Your task to perform on an android device: delete a single message in the gmail app Image 0: 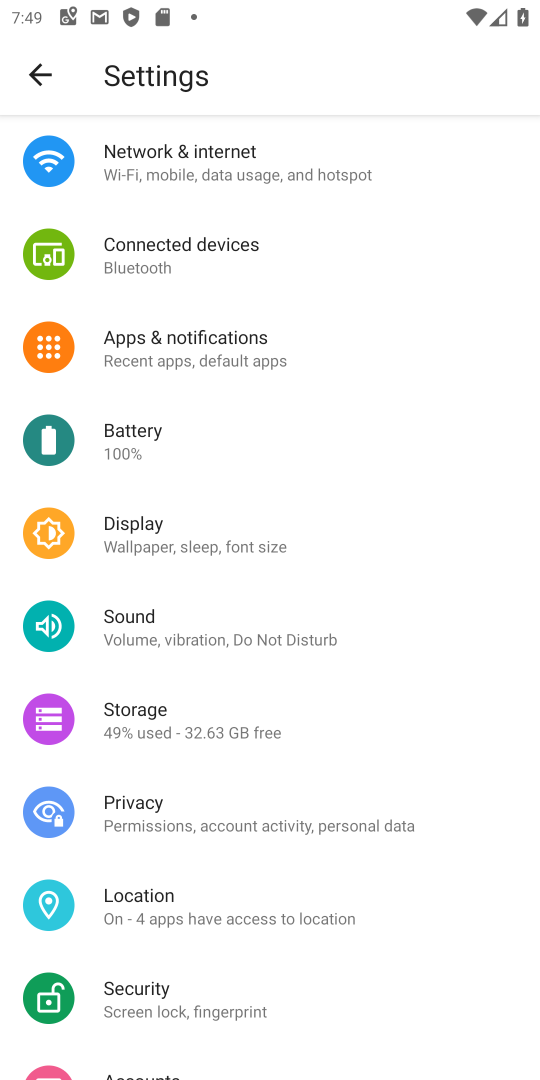
Step 0: press home button
Your task to perform on an android device: delete a single message in the gmail app Image 1: 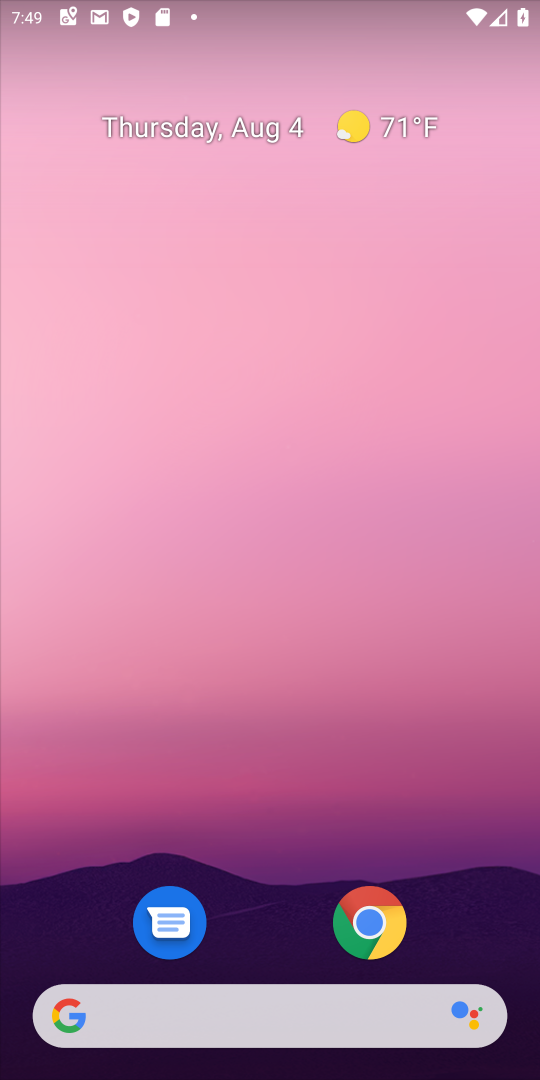
Step 1: drag from (322, 818) to (242, 0)
Your task to perform on an android device: delete a single message in the gmail app Image 2: 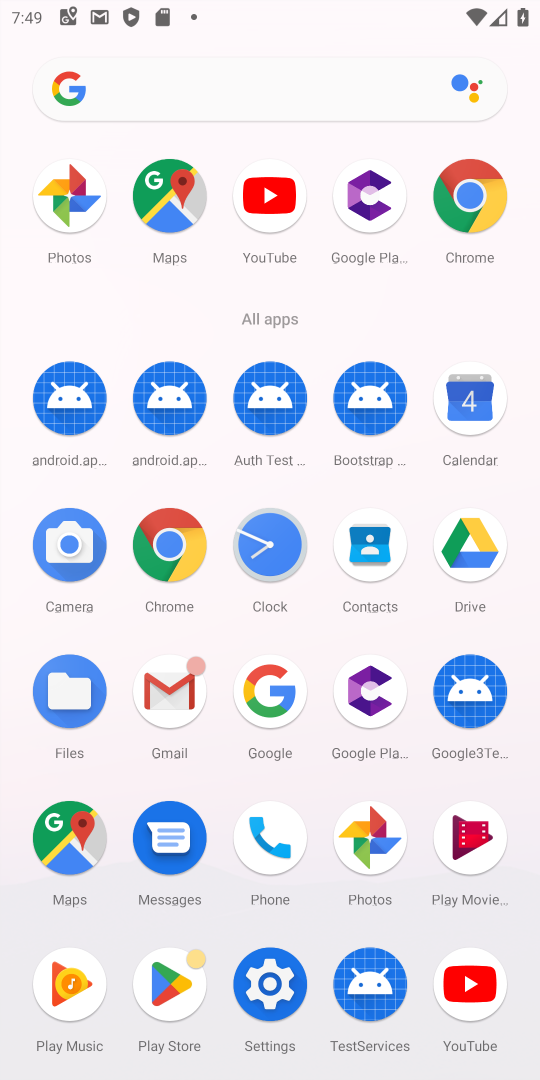
Step 2: click (177, 705)
Your task to perform on an android device: delete a single message in the gmail app Image 3: 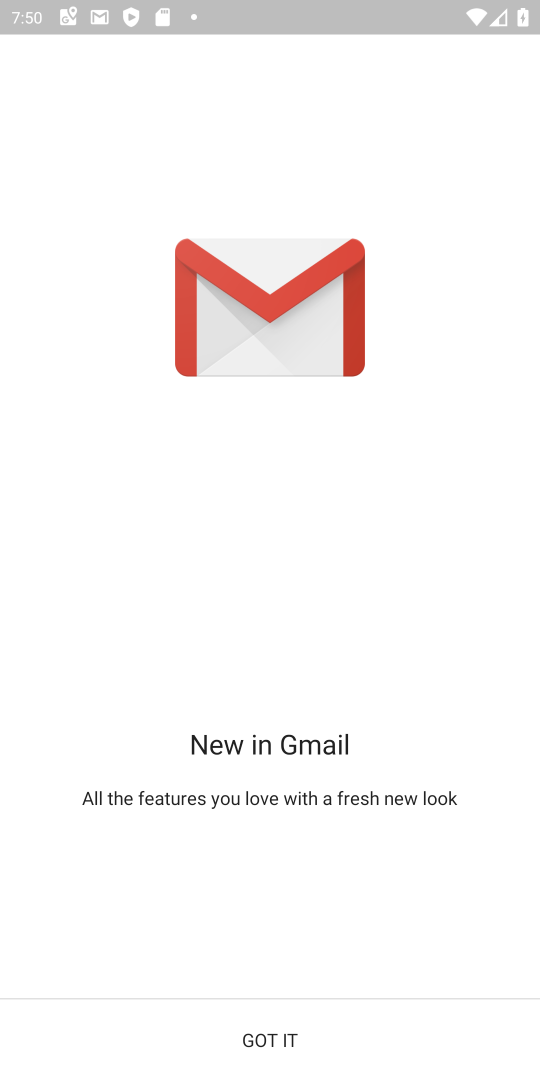
Step 3: click (316, 1026)
Your task to perform on an android device: delete a single message in the gmail app Image 4: 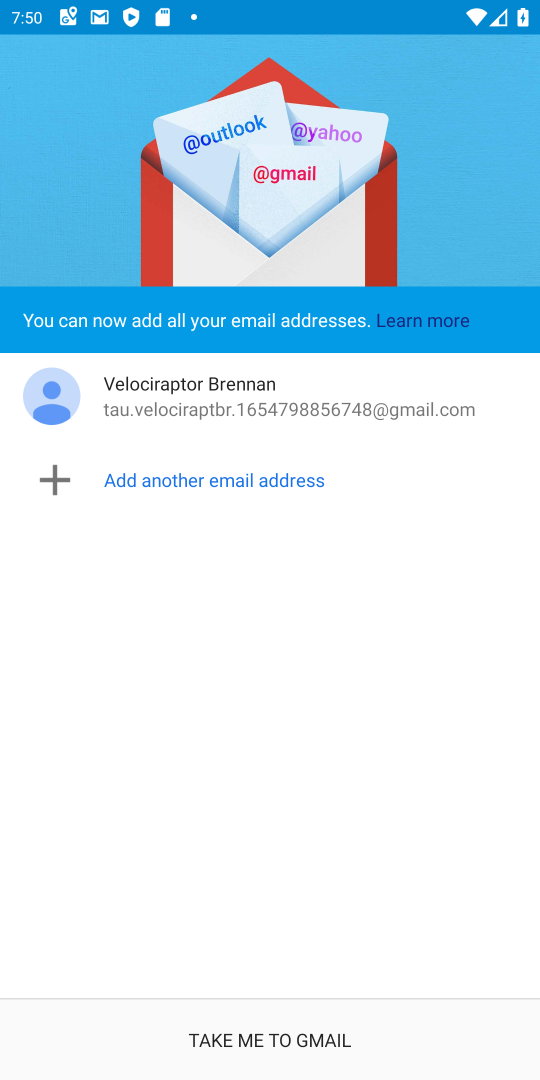
Step 4: click (281, 1034)
Your task to perform on an android device: delete a single message in the gmail app Image 5: 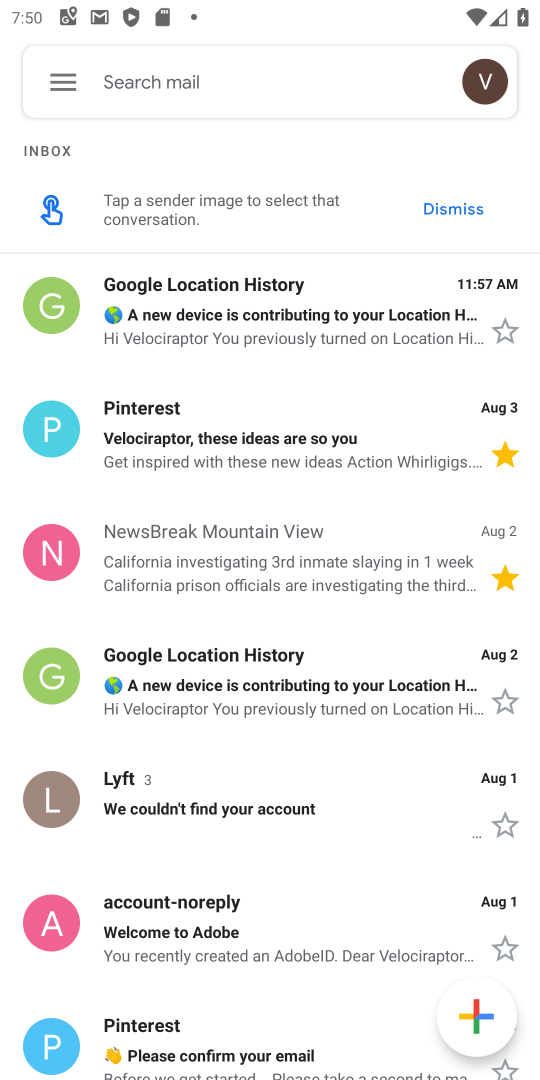
Step 5: click (40, 670)
Your task to perform on an android device: delete a single message in the gmail app Image 6: 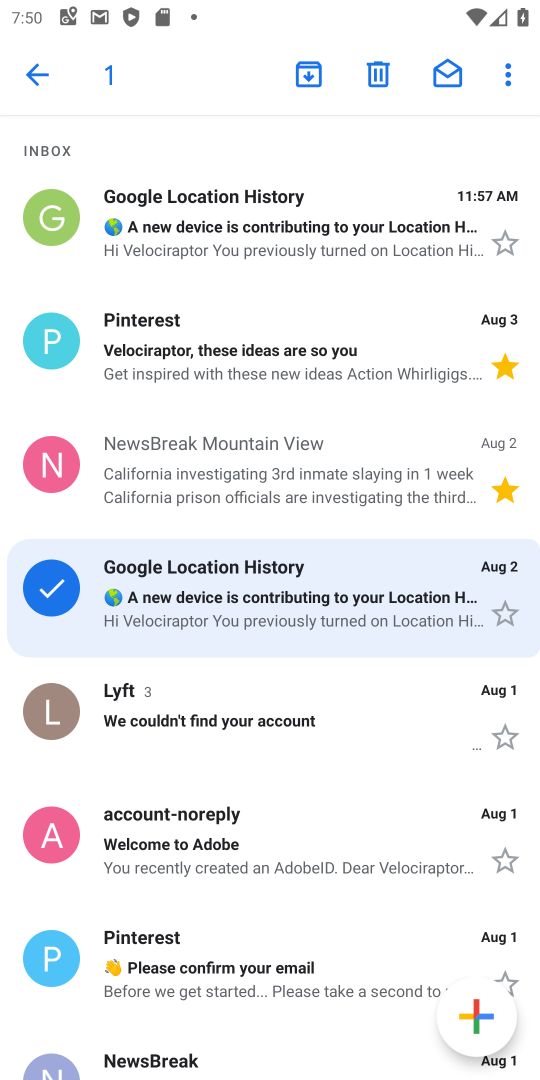
Step 6: click (371, 71)
Your task to perform on an android device: delete a single message in the gmail app Image 7: 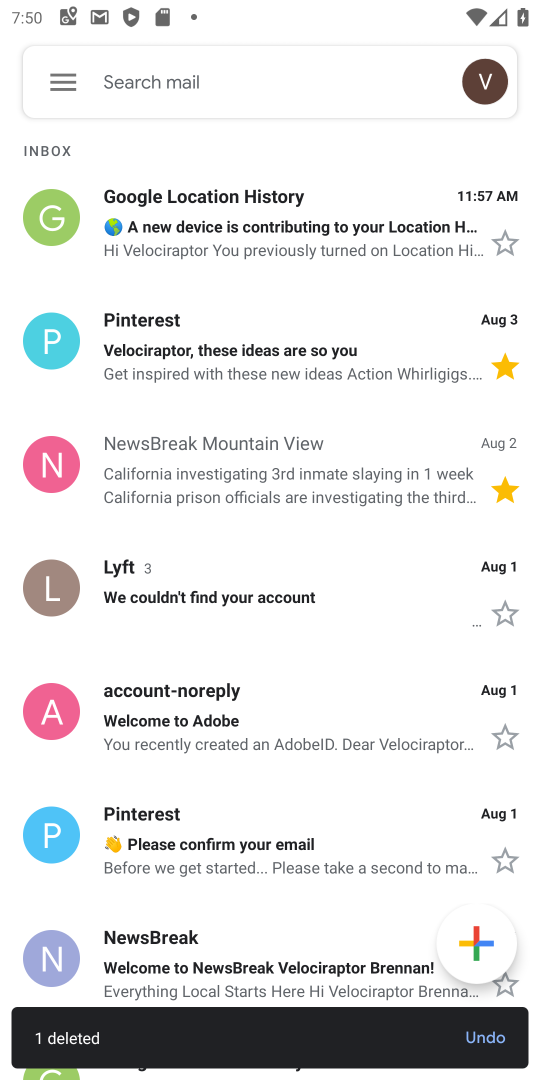
Step 7: task complete